Your task to perform on an android device: toggle translation in the chrome app Image 0: 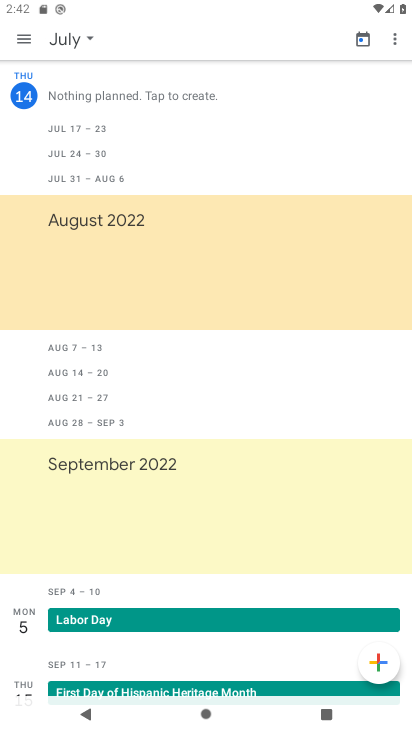
Step 0: press home button
Your task to perform on an android device: toggle translation in the chrome app Image 1: 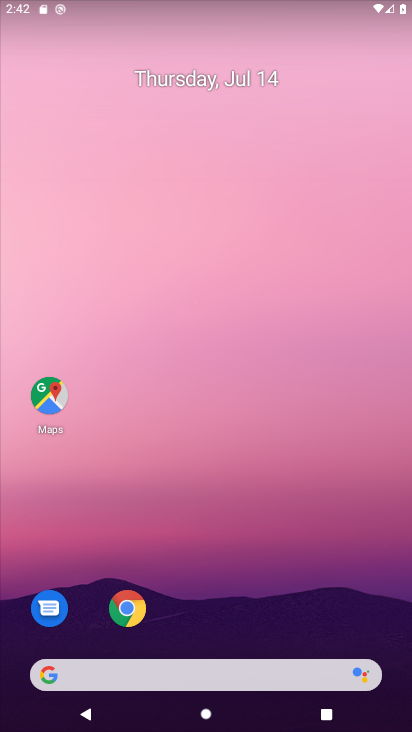
Step 1: click (138, 589)
Your task to perform on an android device: toggle translation in the chrome app Image 2: 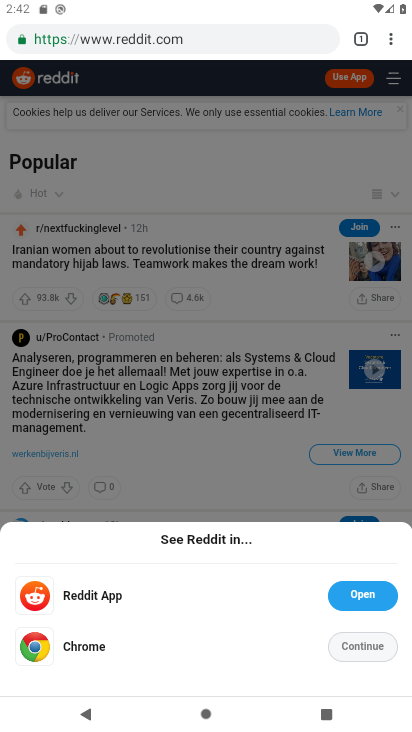
Step 2: drag from (391, 48) to (273, 458)
Your task to perform on an android device: toggle translation in the chrome app Image 3: 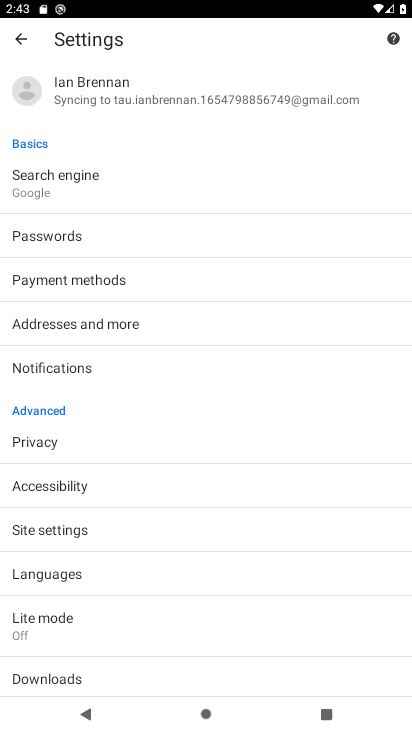
Step 3: click (82, 573)
Your task to perform on an android device: toggle translation in the chrome app Image 4: 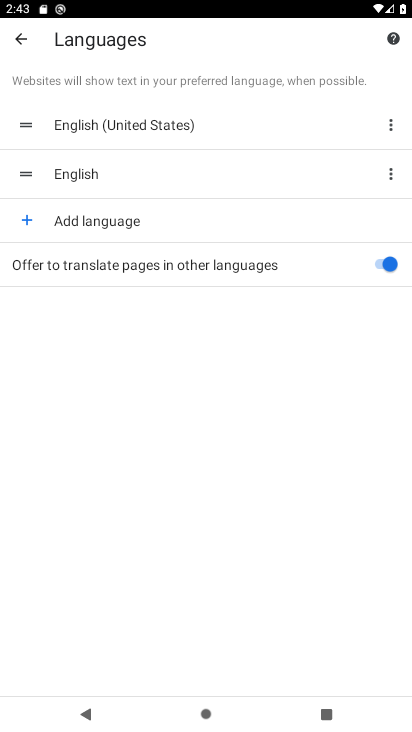
Step 4: click (236, 286)
Your task to perform on an android device: toggle translation in the chrome app Image 5: 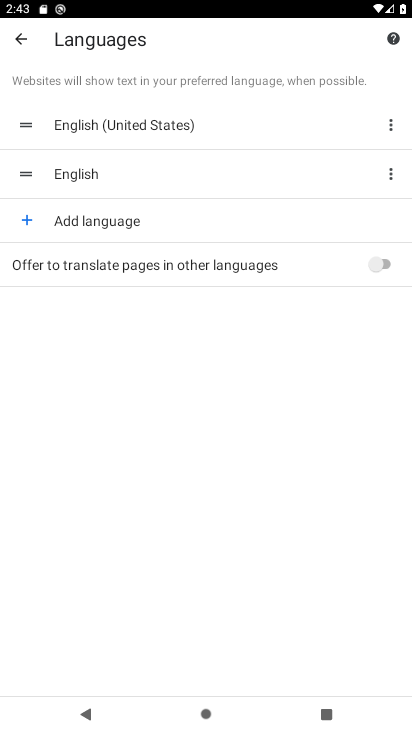
Step 5: task complete